Your task to perform on an android device: delete a single message in the gmail app Image 0: 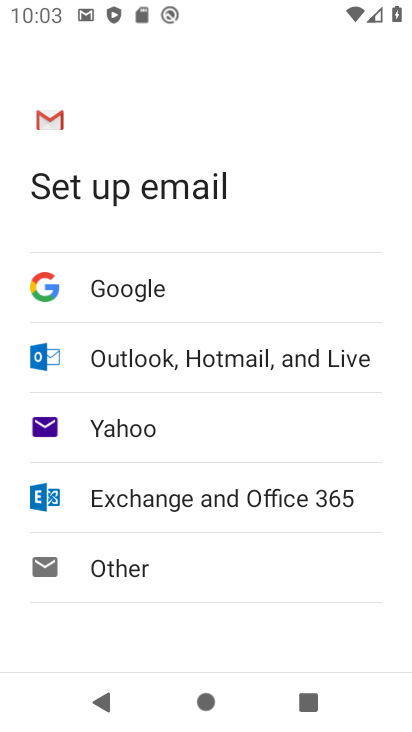
Step 0: press home button
Your task to perform on an android device: delete a single message in the gmail app Image 1: 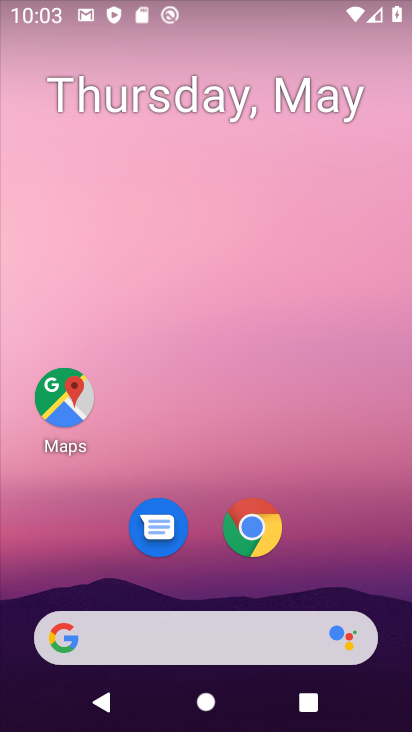
Step 1: drag from (326, 542) to (306, 0)
Your task to perform on an android device: delete a single message in the gmail app Image 2: 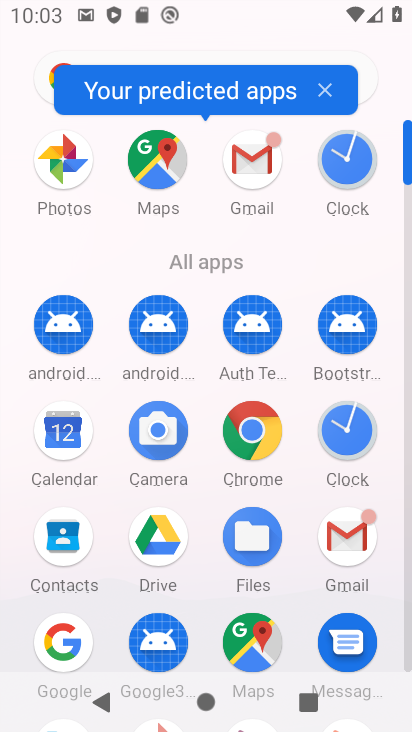
Step 2: click (245, 160)
Your task to perform on an android device: delete a single message in the gmail app Image 3: 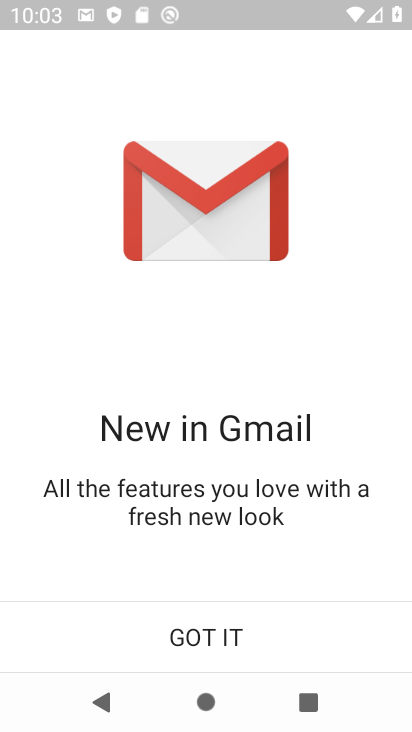
Step 3: click (209, 632)
Your task to perform on an android device: delete a single message in the gmail app Image 4: 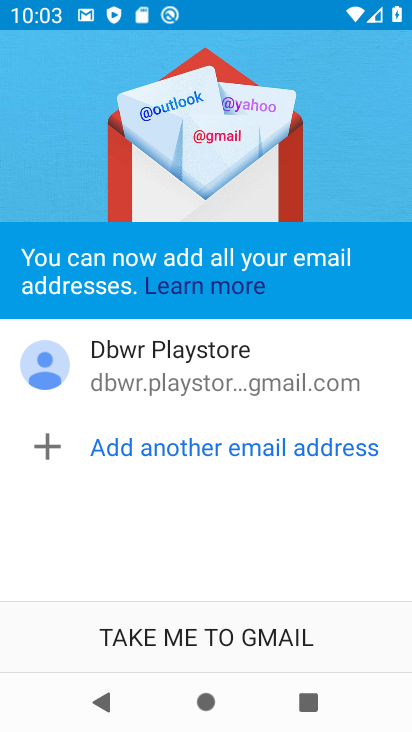
Step 4: click (209, 632)
Your task to perform on an android device: delete a single message in the gmail app Image 5: 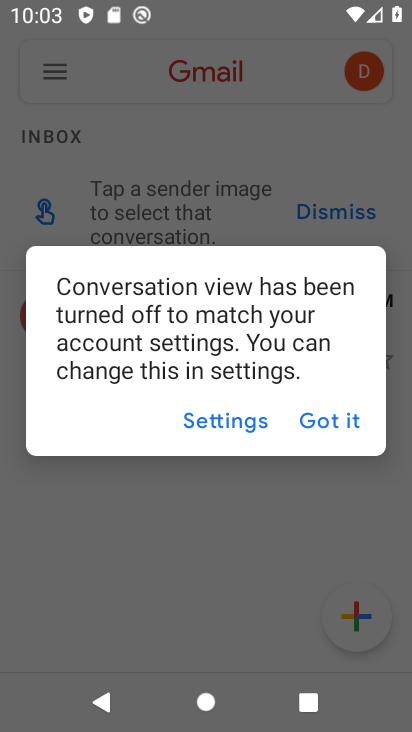
Step 5: click (328, 420)
Your task to perform on an android device: delete a single message in the gmail app Image 6: 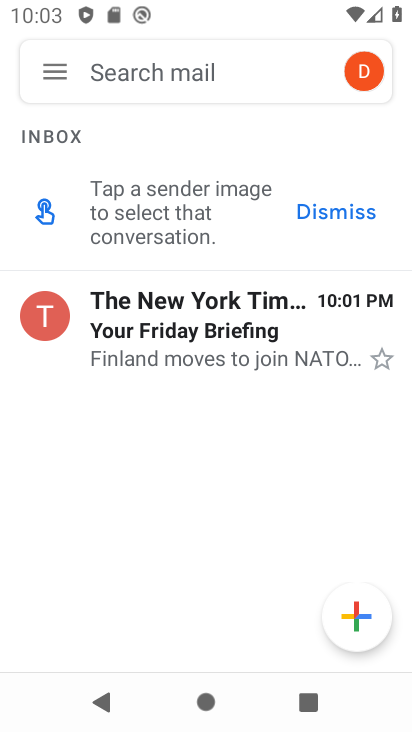
Step 6: click (193, 306)
Your task to perform on an android device: delete a single message in the gmail app Image 7: 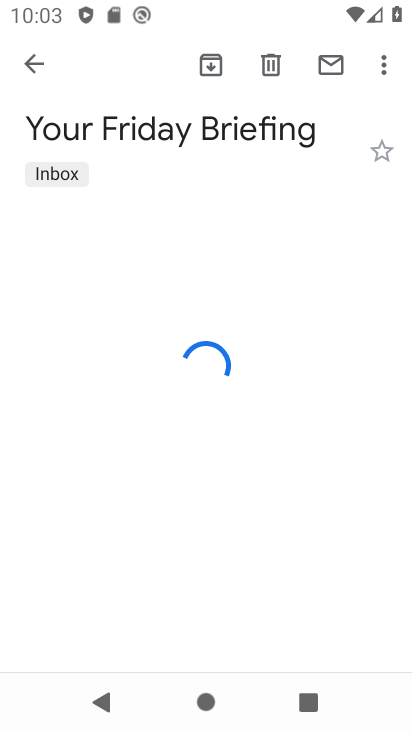
Step 7: click (276, 60)
Your task to perform on an android device: delete a single message in the gmail app Image 8: 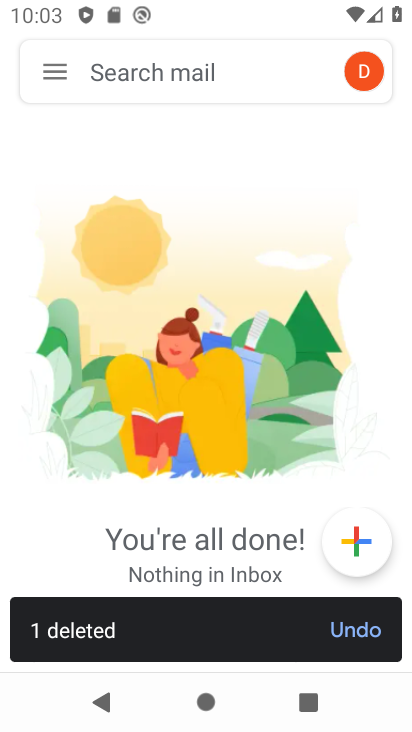
Step 8: task complete